Your task to perform on an android device: Go to Wikipedia Image 0: 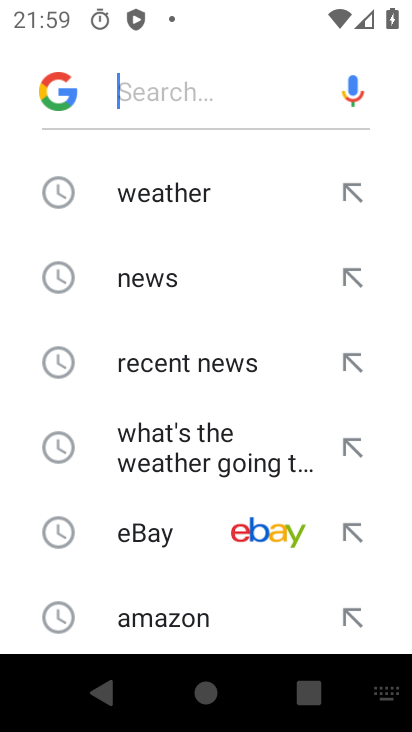
Step 0: press home button
Your task to perform on an android device: Go to Wikipedia Image 1: 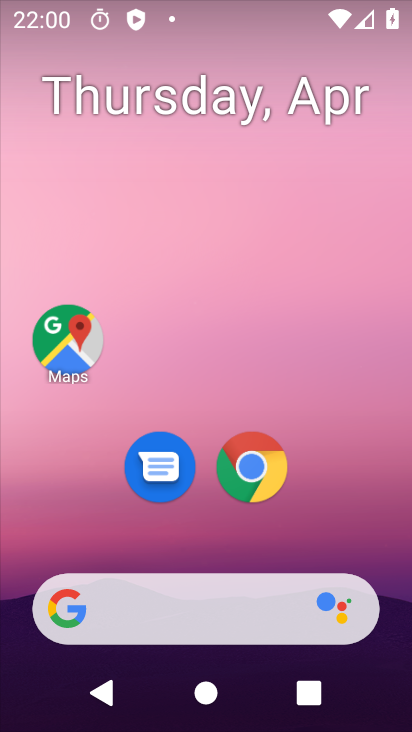
Step 1: click (245, 484)
Your task to perform on an android device: Go to Wikipedia Image 2: 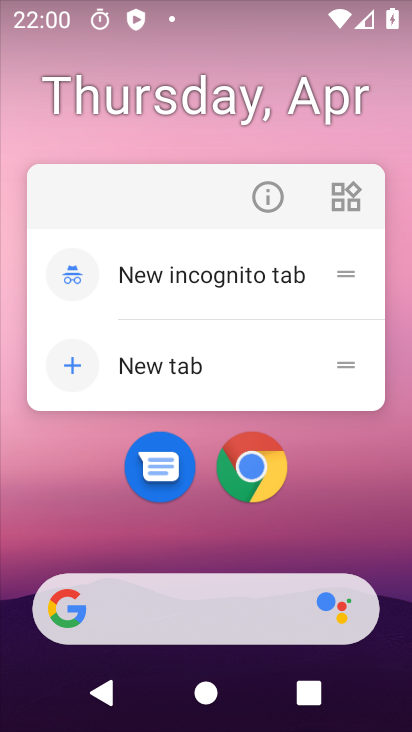
Step 2: click (227, 465)
Your task to perform on an android device: Go to Wikipedia Image 3: 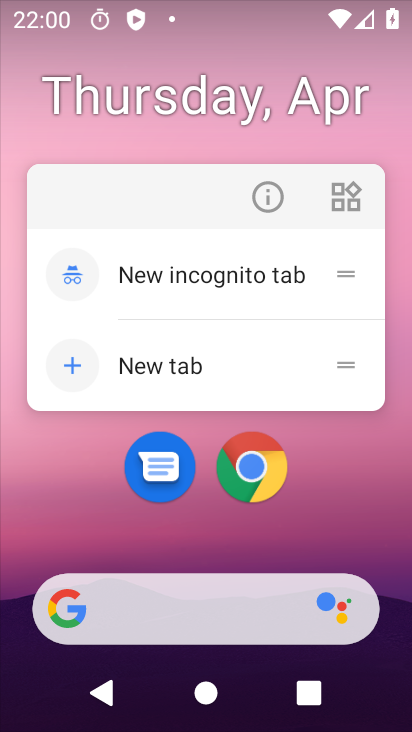
Step 3: click (254, 470)
Your task to perform on an android device: Go to Wikipedia Image 4: 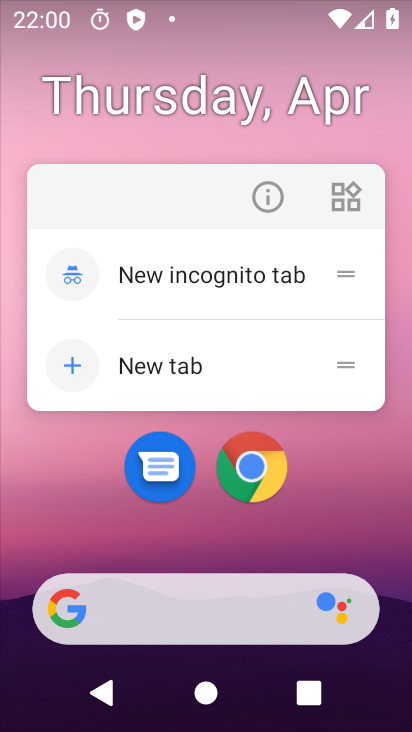
Step 4: click (258, 470)
Your task to perform on an android device: Go to Wikipedia Image 5: 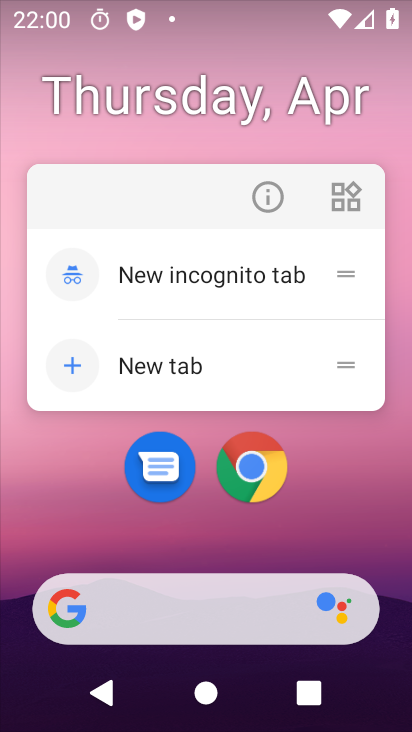
Step 5: click (258, 470)
Your task to perform on an android device: Go to Wikipedia Image 6: 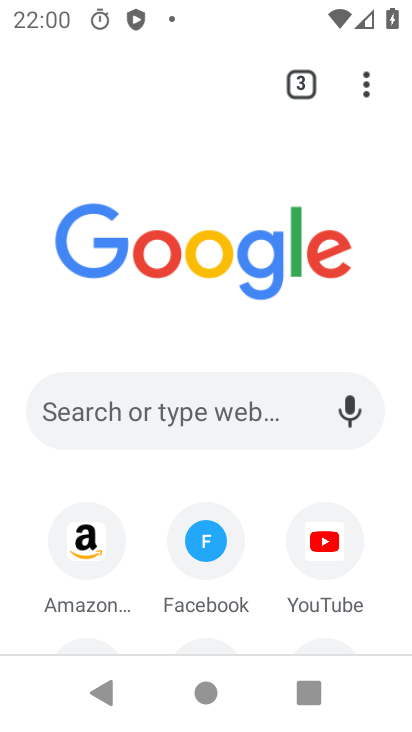
Step 6: drag from (392, 508) to (370, 159)
Your task to perform on an android device: Go to Wikipedia Image 7: 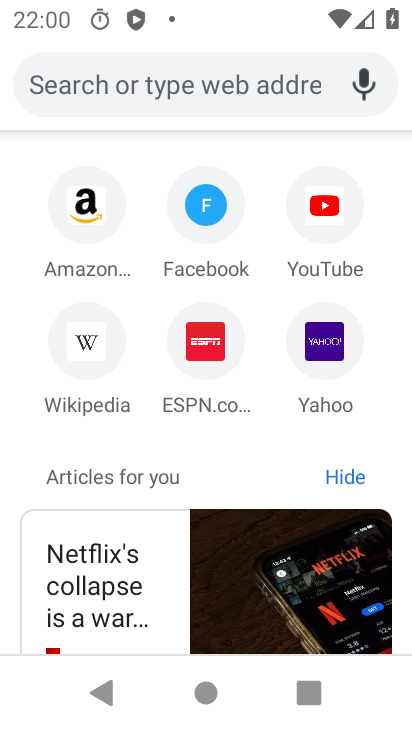
Step 7: click (93, 363)
Your task to perform on an android device: Go to Wikipedia Image 8: 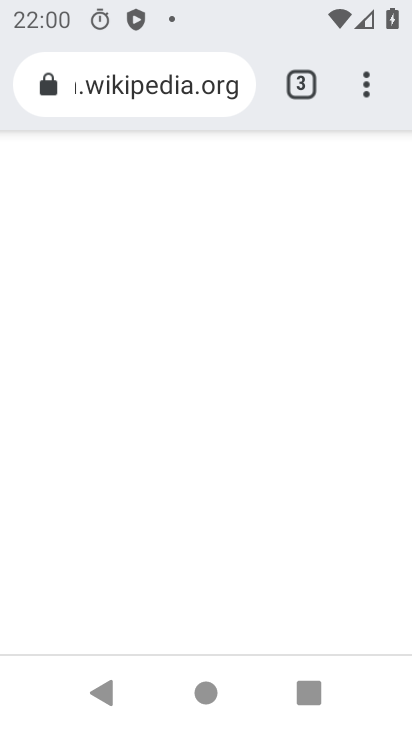
Step 8: task complete